Your task to perform on an android device: Is it going to rain today? Image 0: 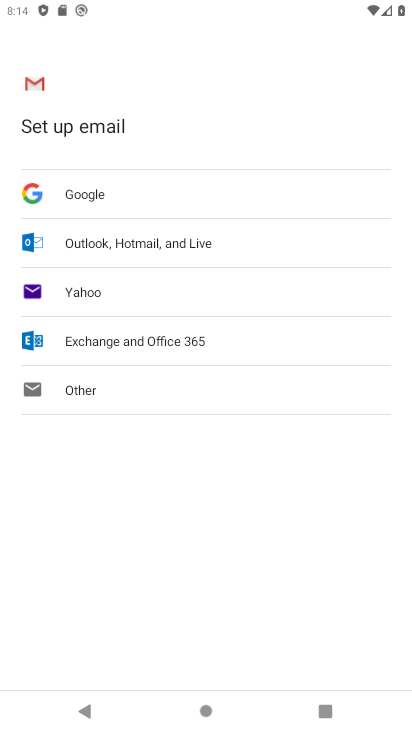
Step 0: press home button
Your task to perform on an android device: Is it going to rain today? Image 1: 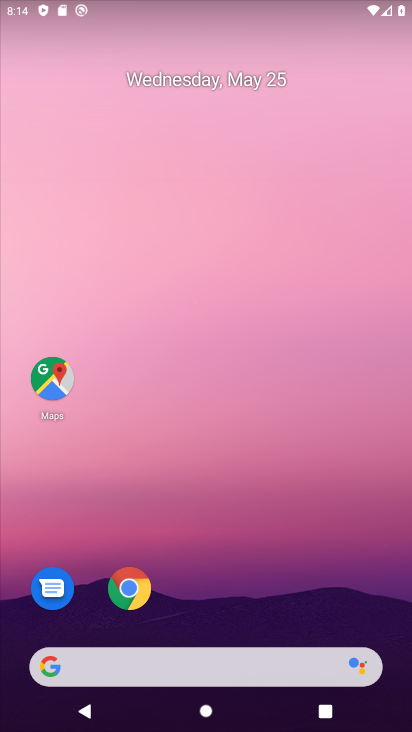
Step 1: drag from (54, 729) to (210, 147)
Your task to perform on an android device: Is it going to rain today? Image 2: 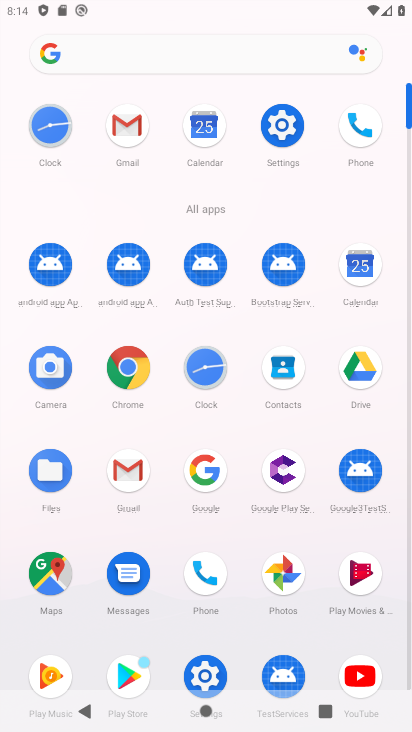
Step 2: press home button
Your task to perform on an android device: Is it going to rain today? Image 3: 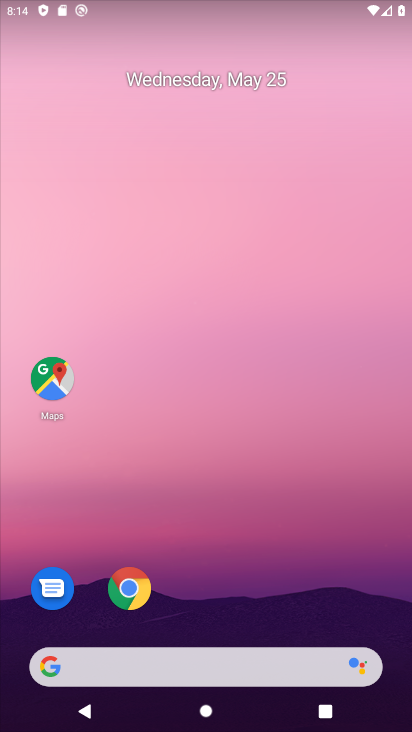
Step 3: click (186, 670)
Your task to perform on an android device: Is it going to rain today? Image 4: 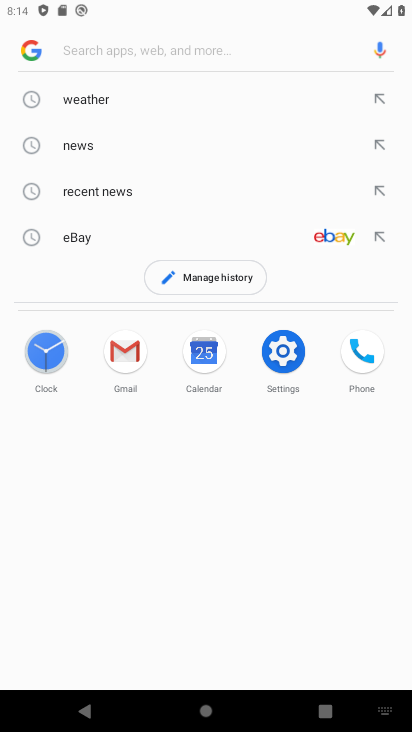
Step 4: click (100, 107)
Your task to perform on an android device: Is it going to rain today? Image 5: 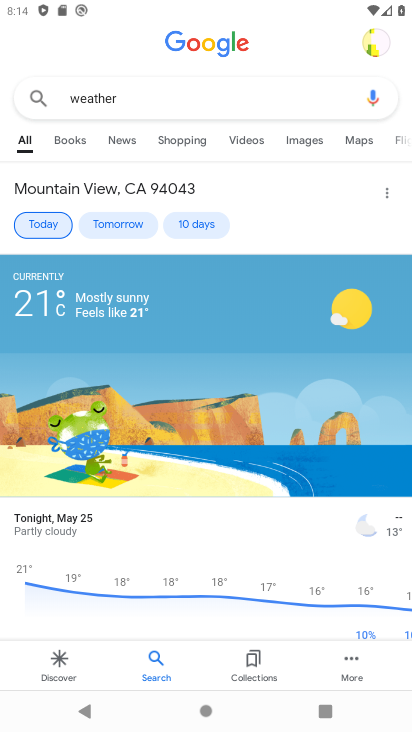
Step 5: task complete